Your task to perform on an android device: toggle airplane mode Image 0: 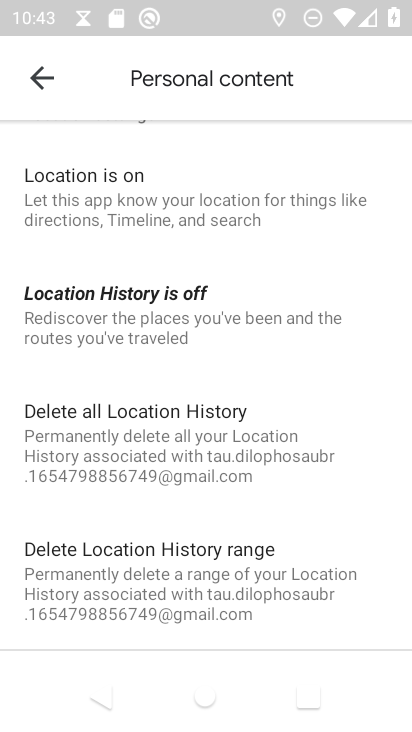
Step 0: press back button
Your task to perform on an android device: toggle airplane mode Image 1: 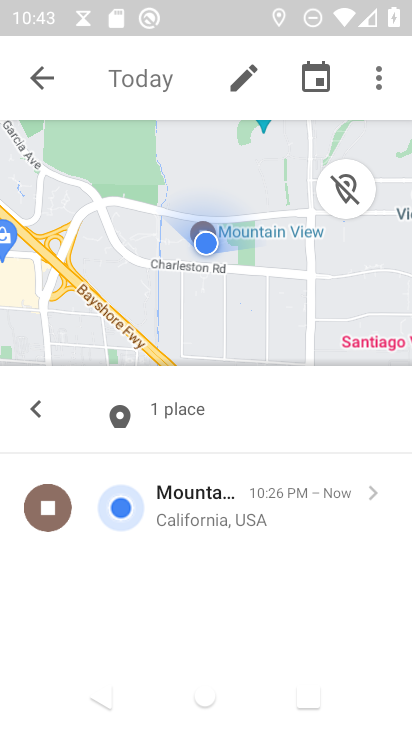
Step 1: press back button
Your task to perform on an android device: toggle airplane mode Image 2: 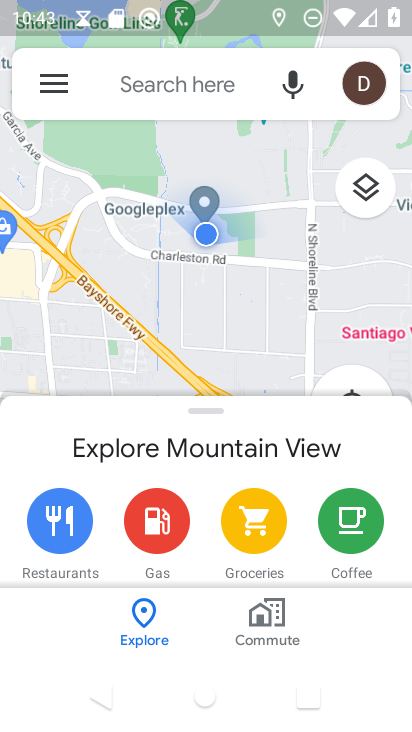
Step 2: drag from (380, 16) to (286, 552)
Your task to perform on an android device: toggle airplane mode Image 3: 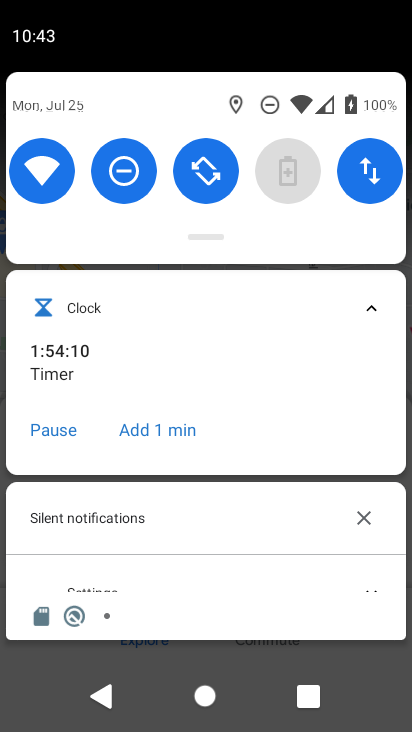
Step 3: drag from (198, 243) to (180, 638)
Your task to perform on an android device: toggle airplane mode Image 4: 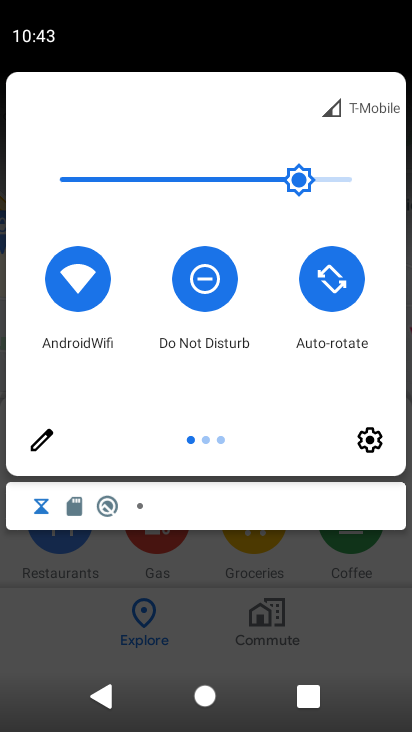
Step 4: drag from (357, 280) to (8, 296)
Your task to perform on an android device: toggle airplane mode Image 5: 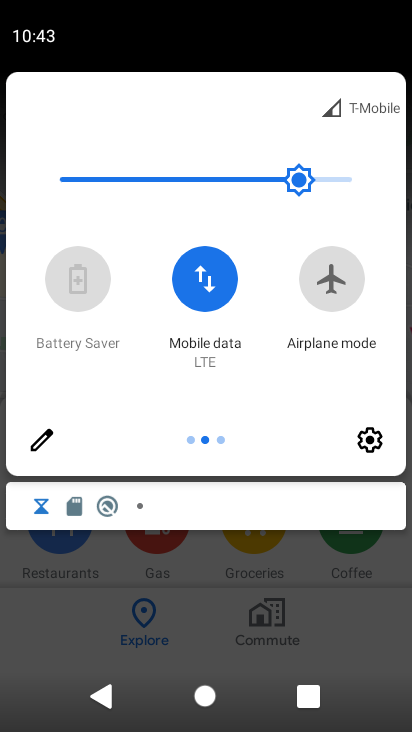
Step 5: click (342, 265)
Your task to perform on an android device: toggle airplane mode Image 6: 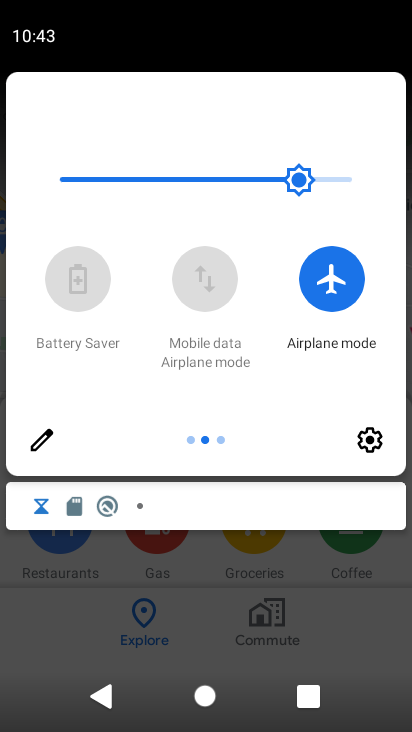
Step 6: task complete